Your task to perform on an android device: Go to accessibility settings Image 0: 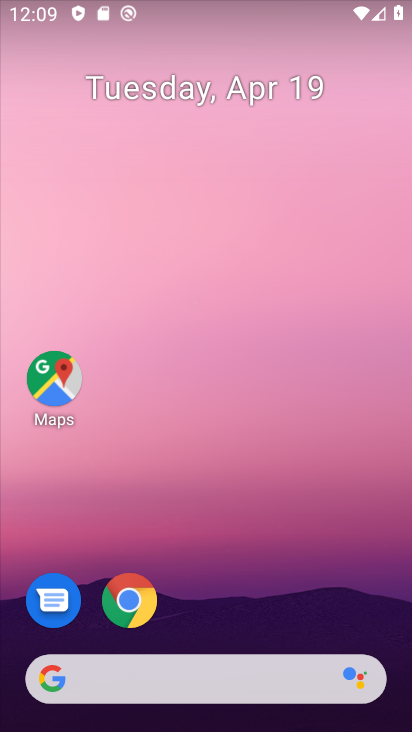
Step 0: drag from (261, 547) to (11, 9)
Your task to perform on an android device: Go to accessibility settings Image 1: 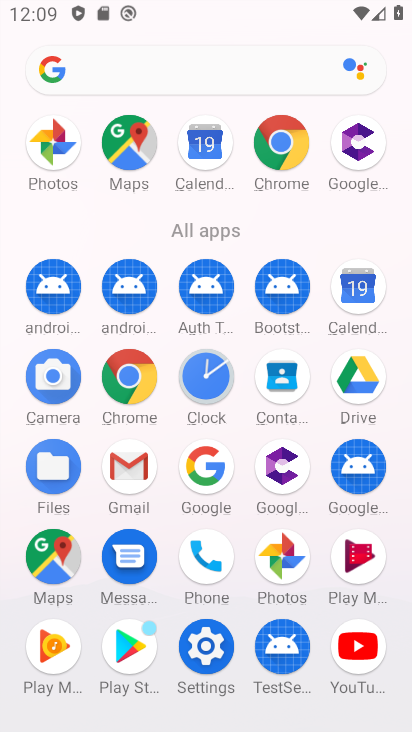
Step 1: drag from (399, 425) to (396, 225)
Your task to perform on an android device: Go to accessibility settings Image 2: 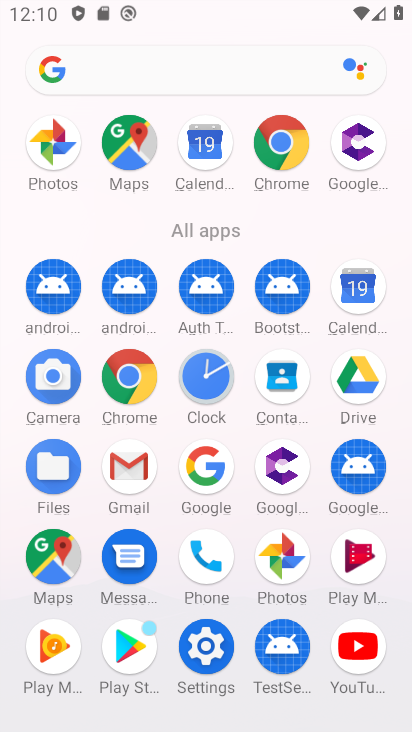
Step 2: click (202, 658)
Your task to perform on an android device: Go to accessibility settings Image 3: 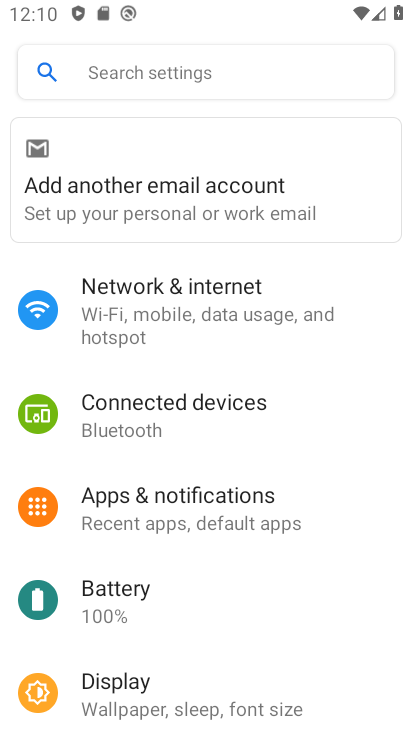
Step 3: drag from (160, 495) to (171, 74)
Your task to perform on an android device: Go to accessibility settings Image 4: 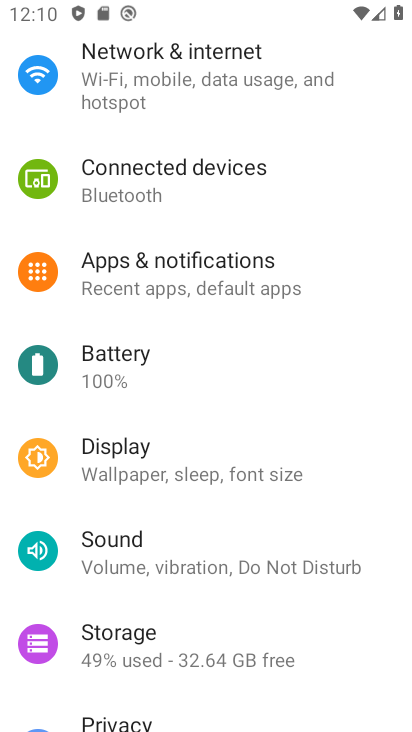
Step 4: drag from (144, 484) to (210, 203)
Your task to perform on an android device: Go to accessibility settings Image 5: 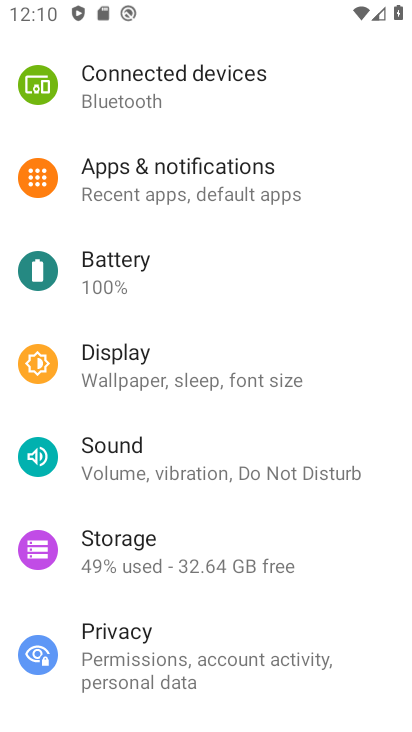
Step 5: drag from (173, 479) to (172, 158)
Your task to perform on an android device: Go to accessibility settings Image 6: 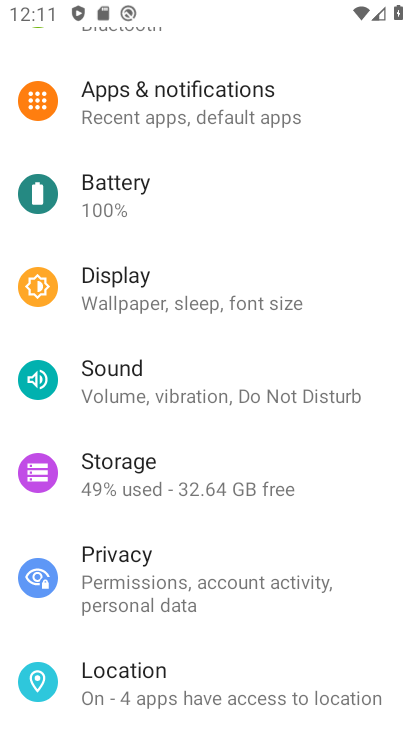
Step 6: drag from (202, 629) to (305, 151)
Your task to perform on an android device: Go to accessibility settings Image 7: 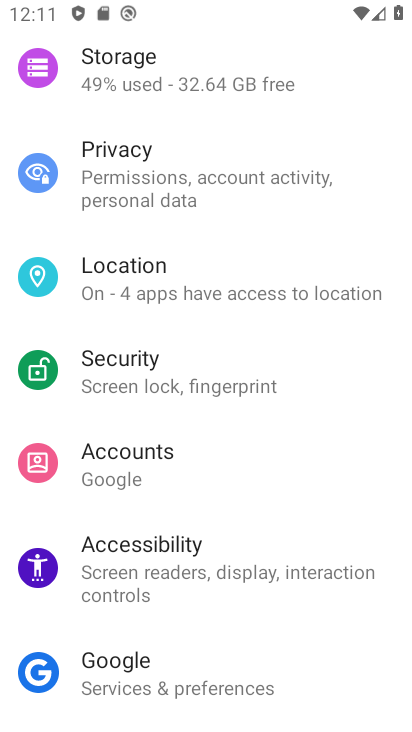
Step 7: drag from (248, 493) to (305, 179)
Your task to perform on an android device: Go to accessibility settings Image 8: 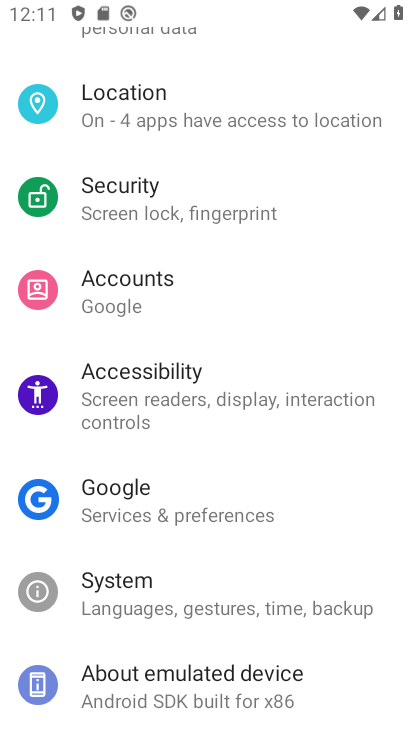
Step 8: drag from (258, 405) to (299, 128)
Your task to perform on an android device: Go to accessibility settings Image 9: 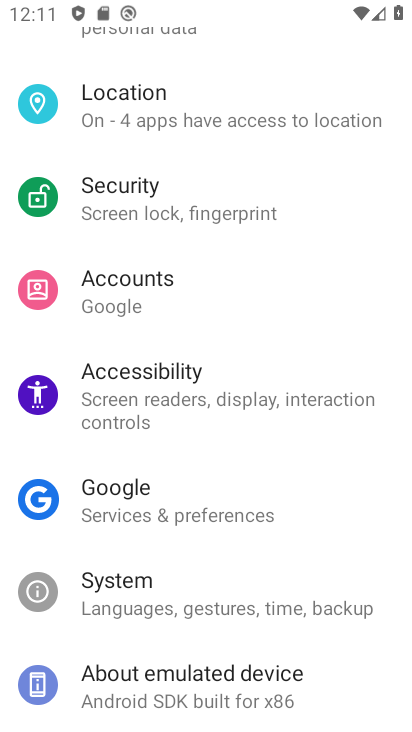
Step 9: drag from (298, 127) to (308, 516)
Your task to perform on an android device: Go to accessibility settings Image 10: 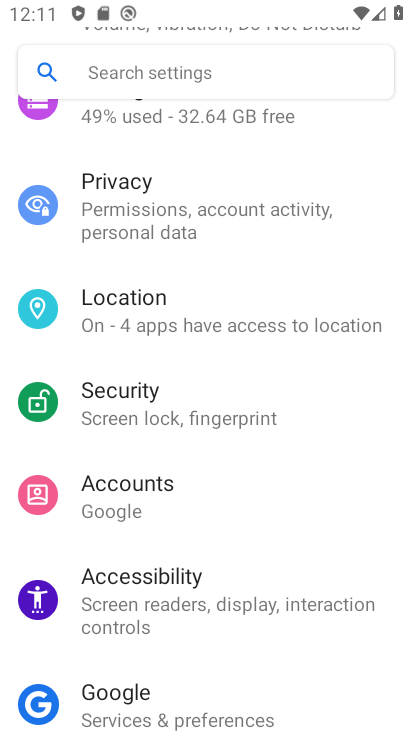
Step 10: click (162, 582)
Your task to perform on an android device: Go to accessibility settings Image 11: 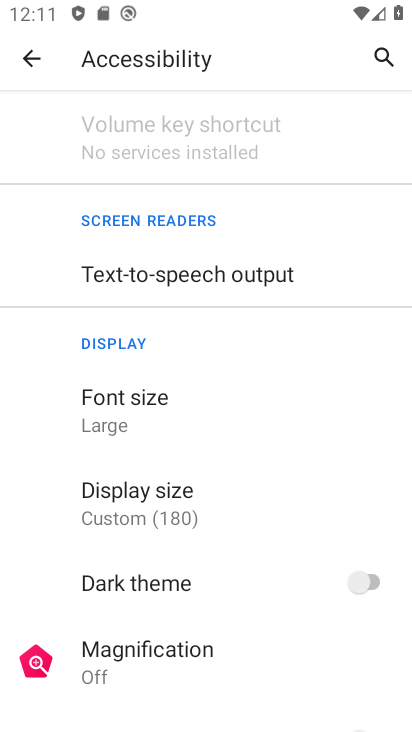
Step 11: task complete